Your task to perform on an android device: turn off wifi Image 0: 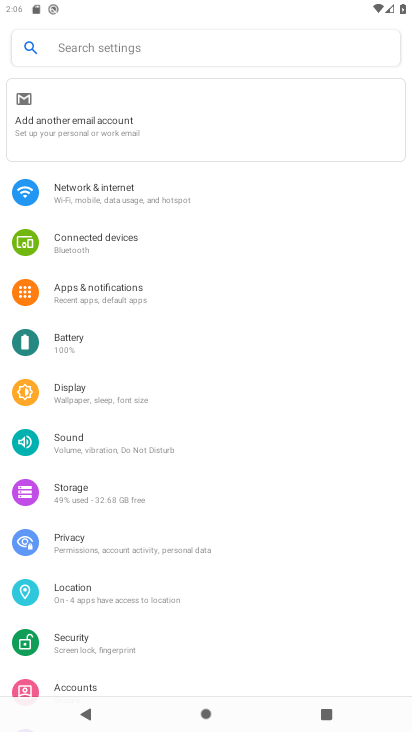
Step 0: click (137, 196)
Your task to perform on an android device: turn off wifi Image 1: 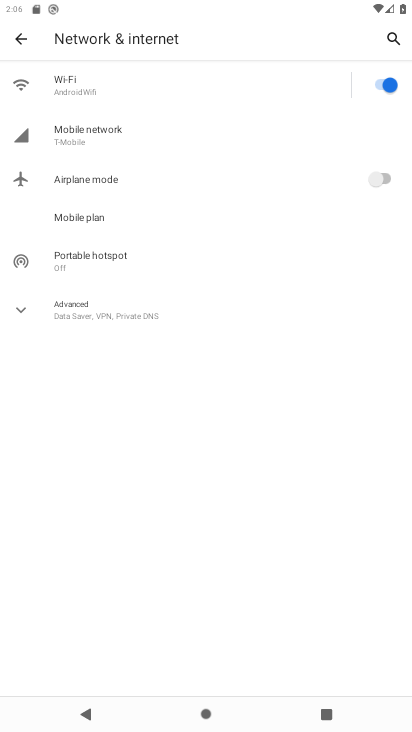
Step 1: click (372, 81)
Your task to perform on an android device: turn off wifi Image 2: 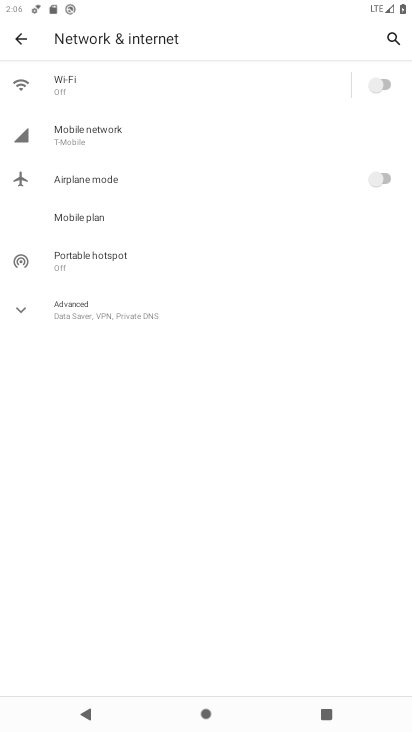
Step 2: task complete